Your task to perform on an android device: Go to location settings Image 0: 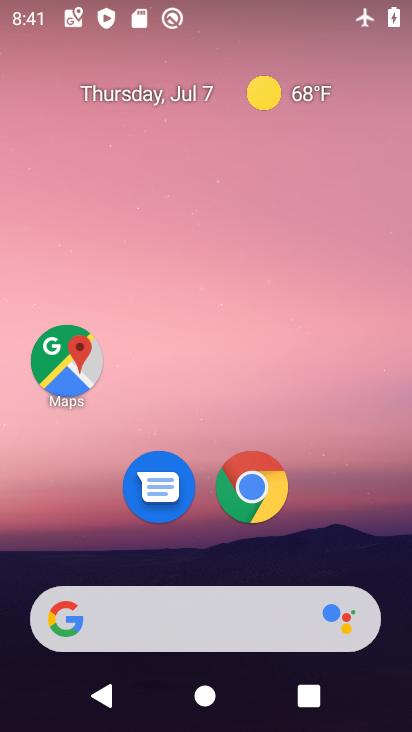
Step 0: drag from (134, 587) to (116, 9)
Your task to perform on an android device: Go to location settings Image 1: 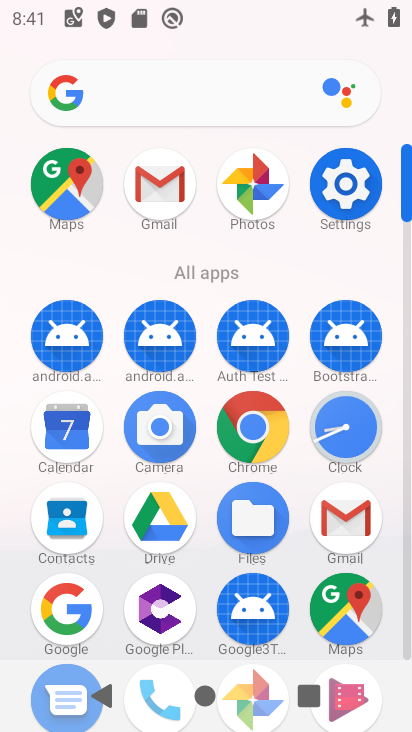
Step 1: click (337, 156)
Your task to perform on an android device: Go to location settings Image 2: 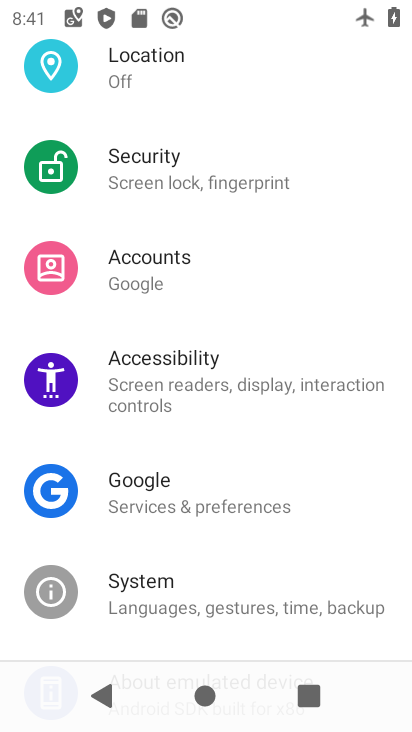
Step 2: click (129, 82)
Your task to perform on an android device: Go to location settings Image 3: 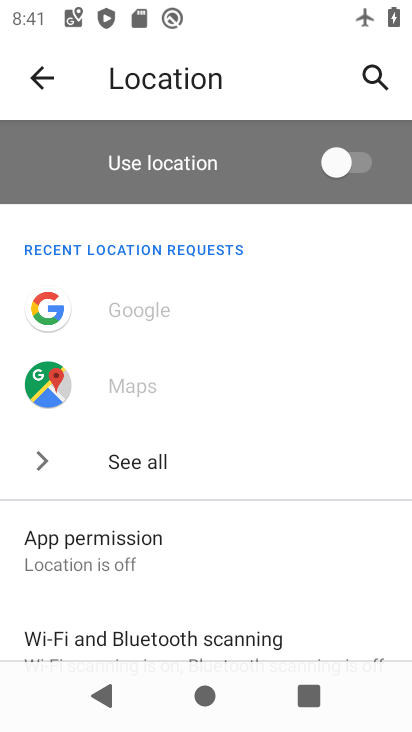
Step 3: task complete